Your task to perform on an android device: check battery use Image 0: 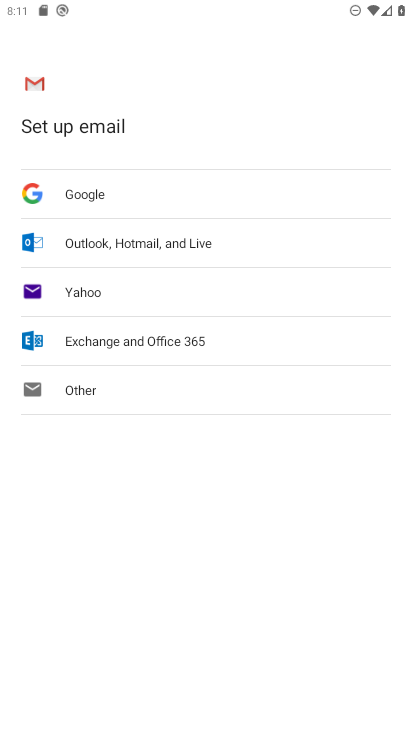
Step 0: press home button
Your task to perform on an android device: check battery use Image 1: 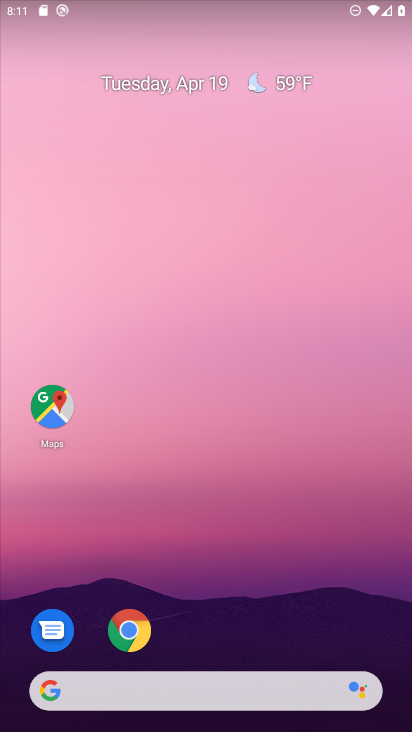
Step 1: drag from (218, 399) to (263, 36)
Your task to perform on an android device: check battery use Image 2: 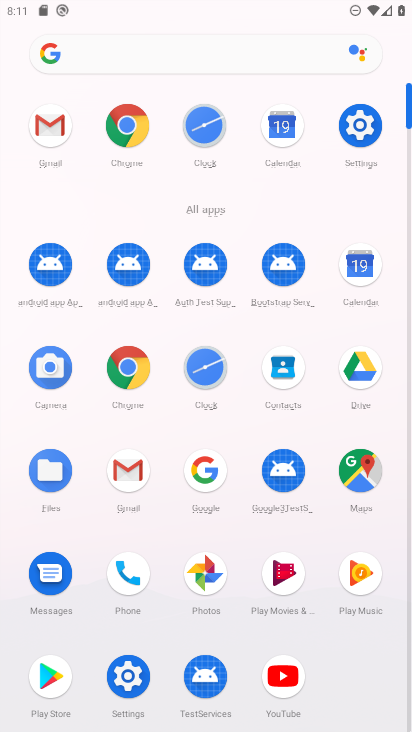
Step 2: click (364, 112)
Your task to perform on an android device: check battery use Image 3: 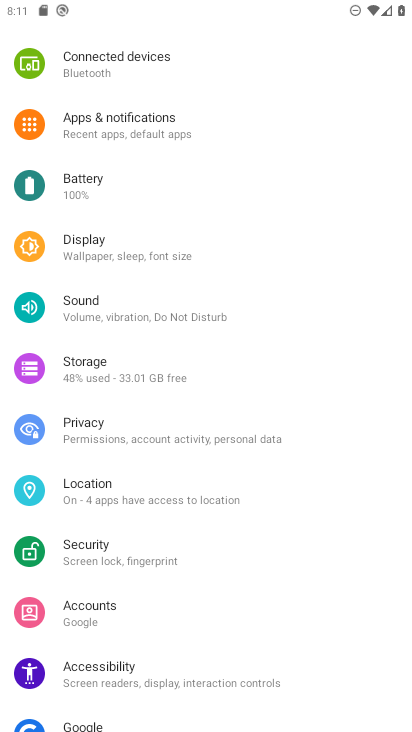
Step 3: click (126, 187)
Your task to perform on an android device: check battery use Image 4: 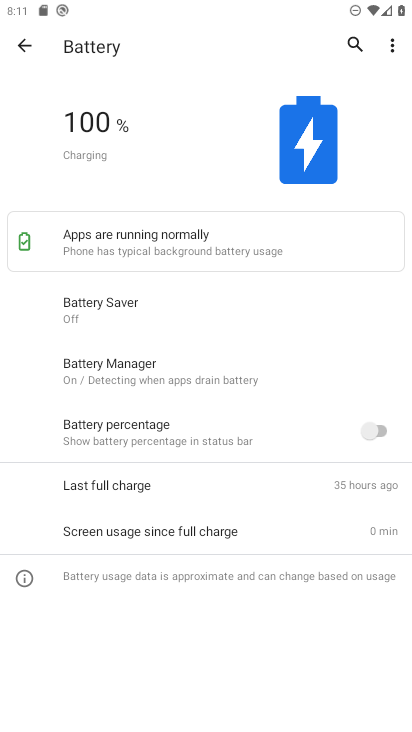
Step 4: task complete